Your task to perform on an android device: allow notifications from all sites in the chrome app Image 0: 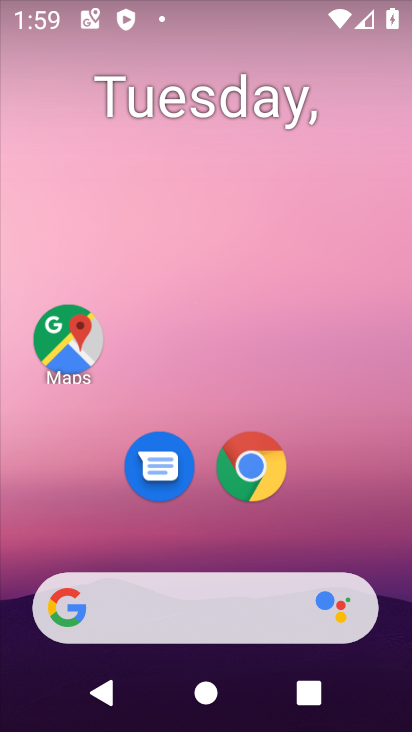
Step 0: task complete